Your task to perform on an android device: toggle javascript in the chrome app Image 0: 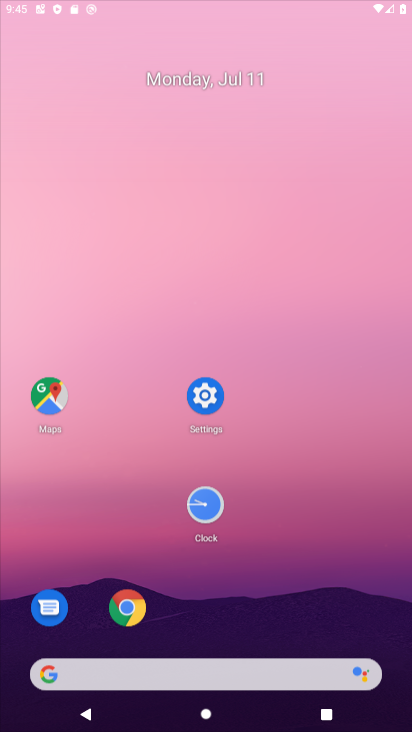
Step 0: click (207, 497)
Your task to perform on an android device: toggle javascript in the chrome app Image 1: 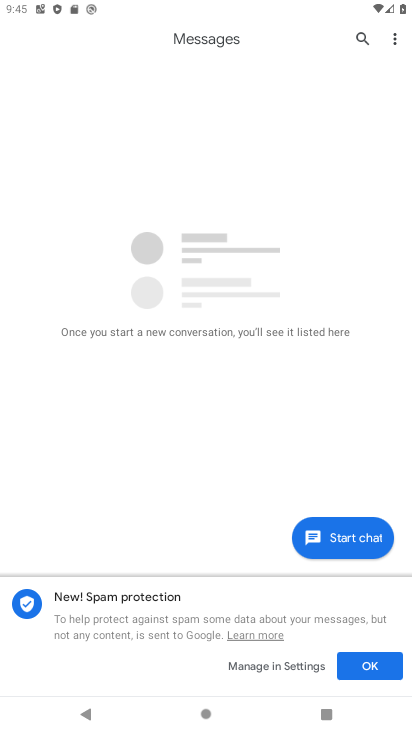
Step 1: press home button
Your task to perform on an android device: toggle javascript in the chrome app Image 2: 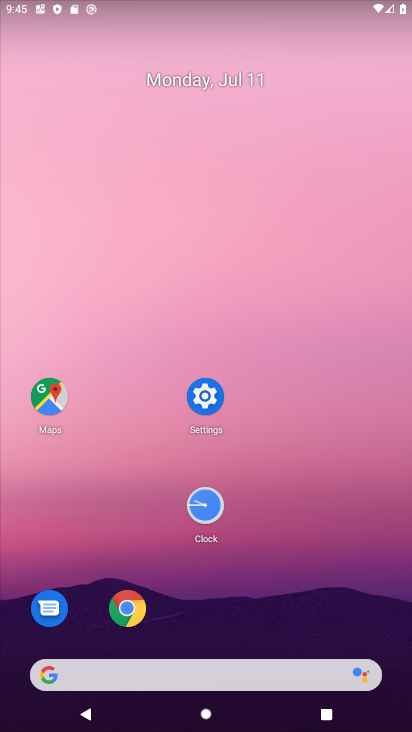
Step 2: click (125, 609)
Your task to perform on an android device: toggle javascript in the chrome app Image 3: 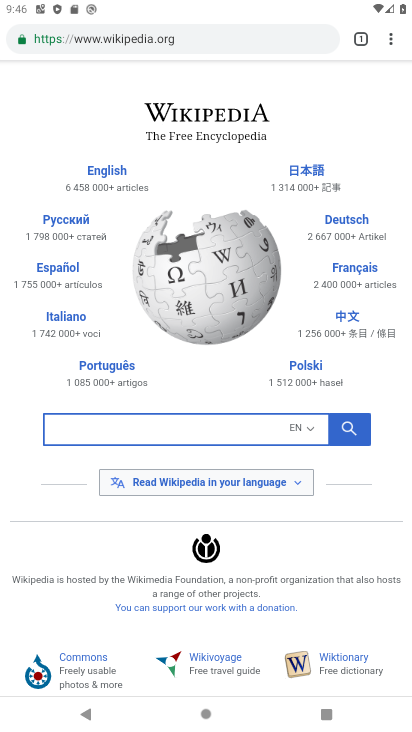
Step 3: click (391, 38)
Your task to perform on an android device: toggle javascript in the chrome app Image 4: 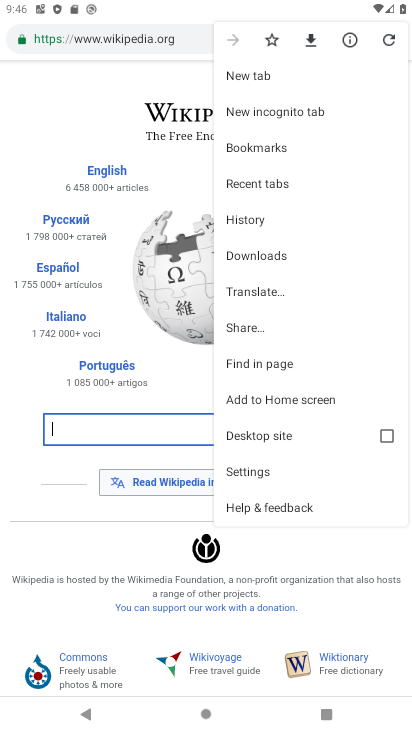
Step 4: click (233, 472)
Your task to perform on an android device: toggle javascript in the chrome app Image 5: 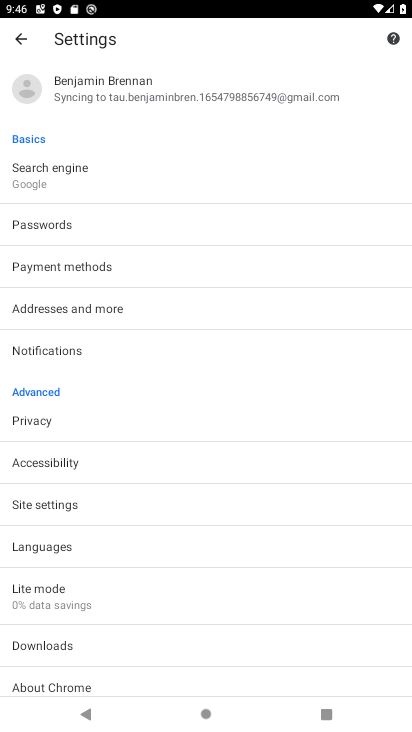
Step 5: click (51, 502)
Your task to perform on an android device: toggle javascript in the chrome app Image 6: 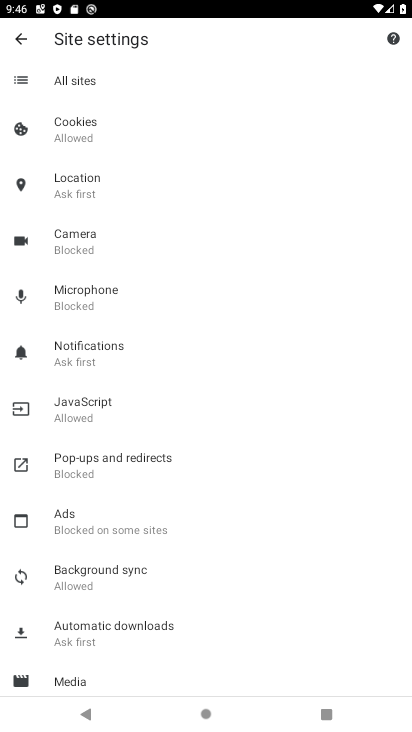
Step 6: click (86, 400)
Your task to perform on an android device: toggle javascript in the chrome app Image 7: 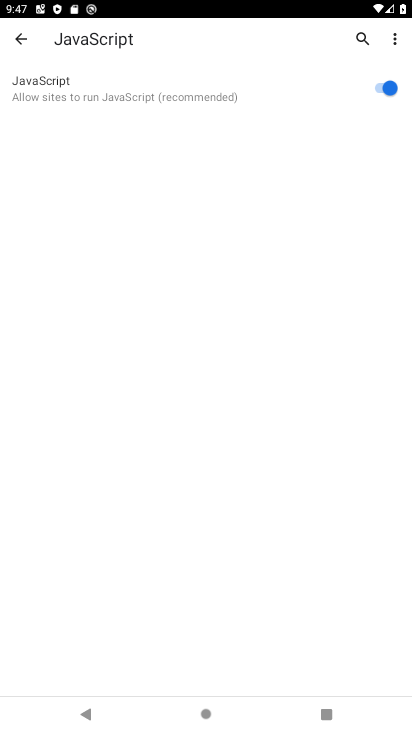
Step 7: click (375, 88)
Your task to perform on an android device: toggle javascript in the chrome app Image 8: 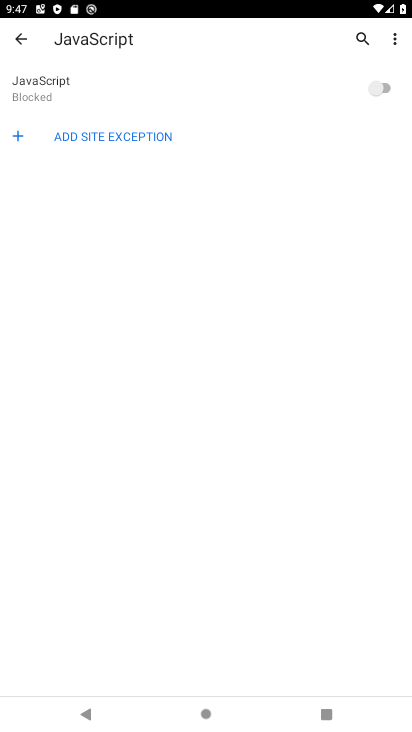
Step 8: task complete